Your task to perform on an android device: check battery use Image 0: 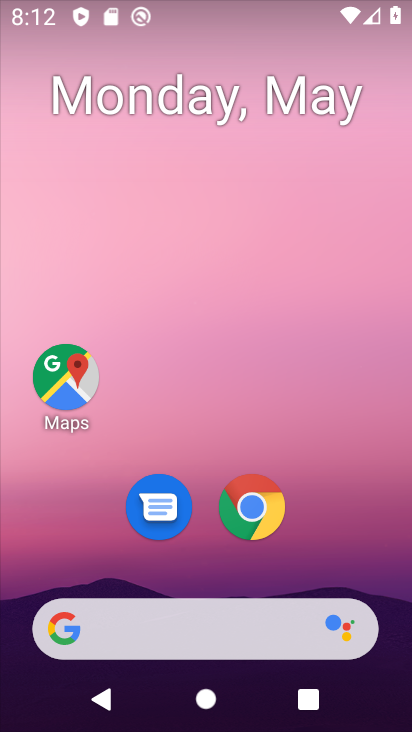
Step 0: drag from (214, 557) to (279, 13)
Your task to perform on an android device: check battery use Image 1: 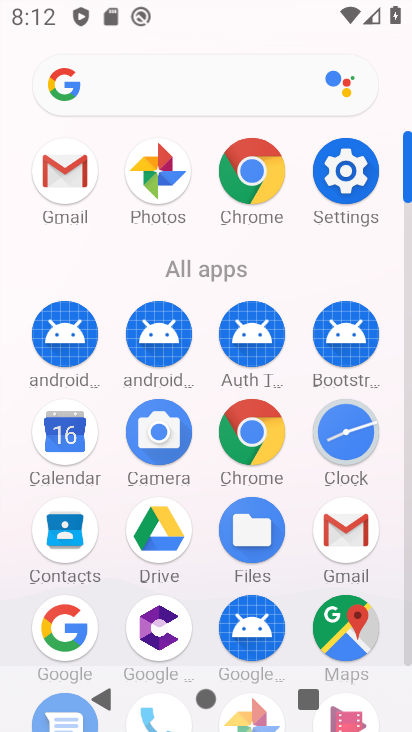
Step 1: click (349, 181)
Your task to perform on an android device: check battery use Image 2: 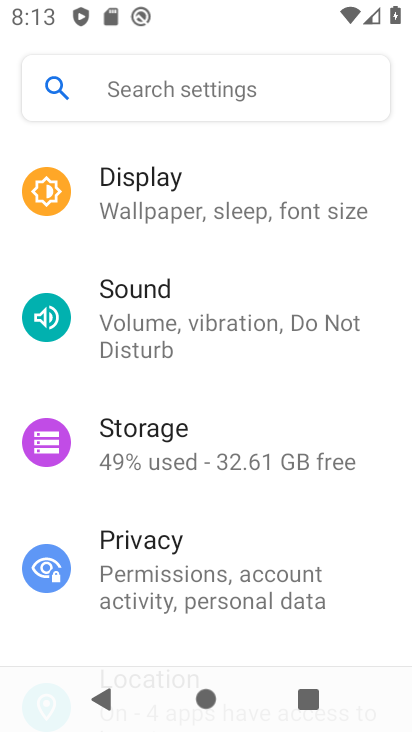
Step 2: drag from (246, 251) to (242, 591)
Your task to perform on an android device: check battery use Image 3: 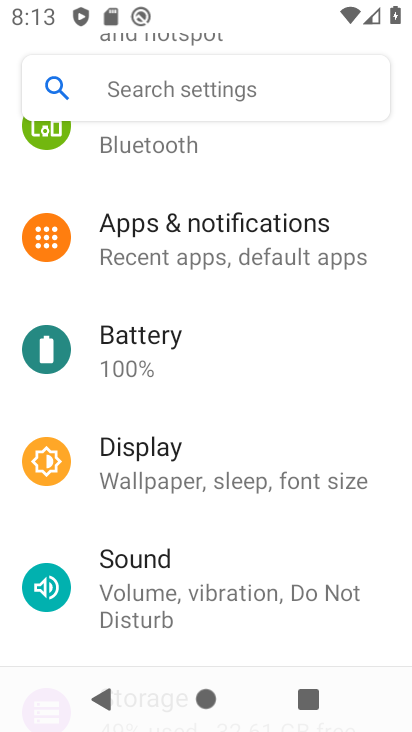
Step 3: click (215, 342)
Your task to perform on an android device: check battery use Image 4: 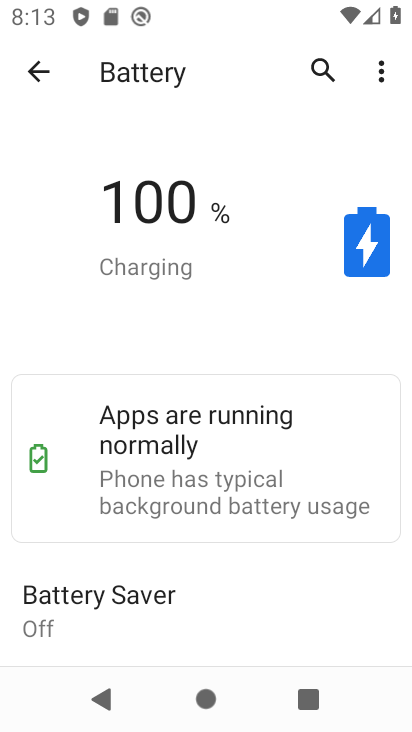
Step 4: click (388, 73)
Your task to perform on an android device: check battery use Image 5: 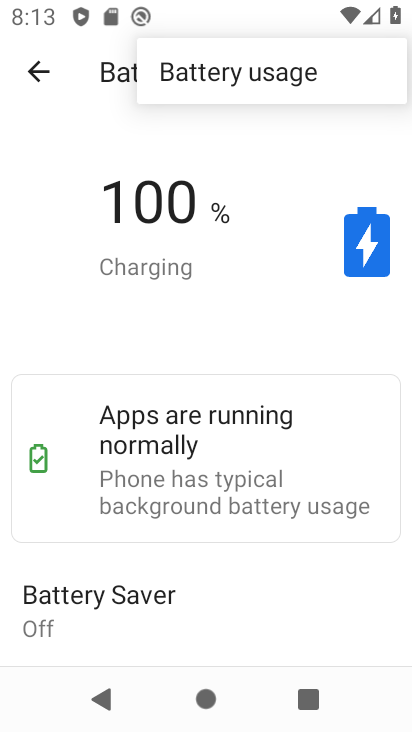
Step 5: click (262, 73)
Your task to perform on an android device: check battery use Image 6: 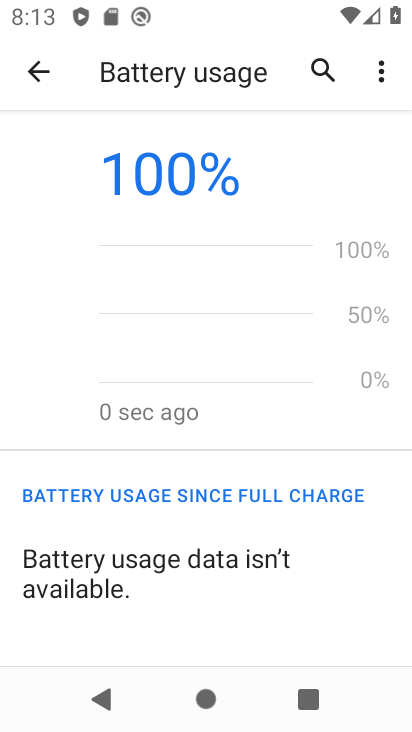
Step 6: task complete